Your task to perform on an android device: turn on bluetooth scan Image 0: 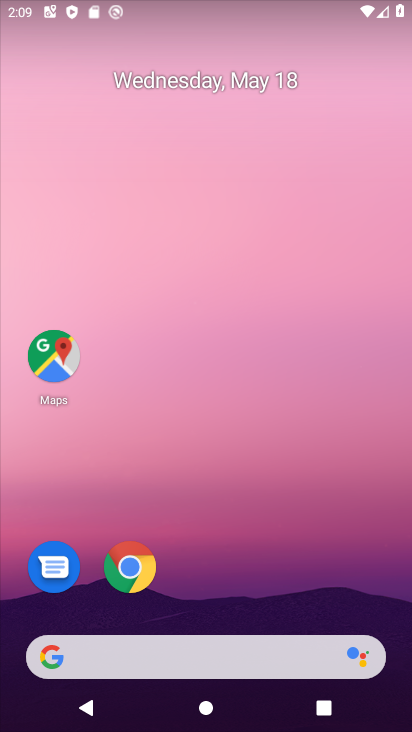
Step 0: drag from (225, 546) to (356, 7)
Your task to perform on an android device: turn on bluetooth scan Image 1: 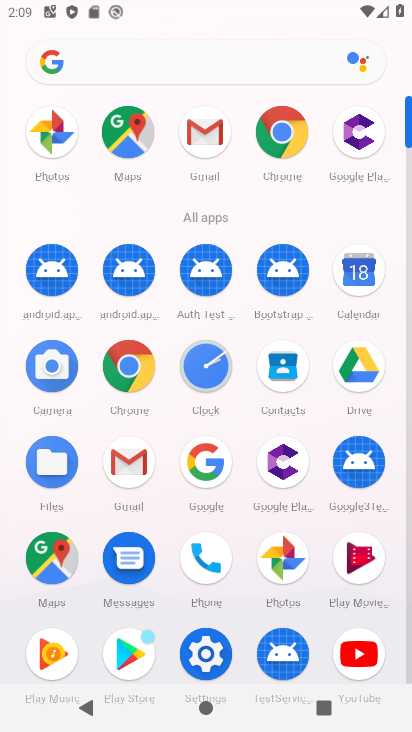
Step 1: click (212, 648)
Your task to perform on an android device: turn on bluetooth scan Image 2: 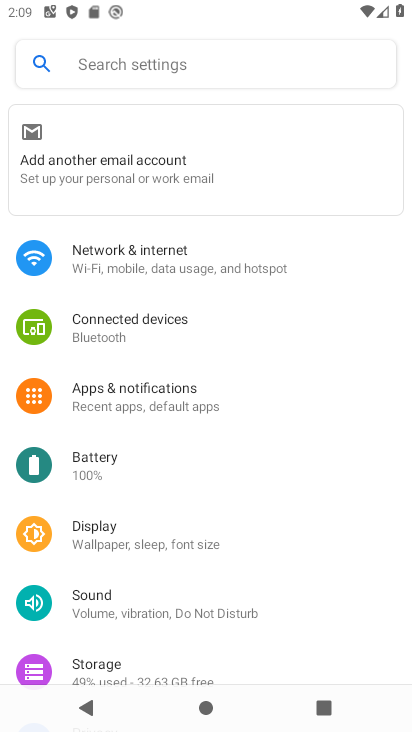
Step 2: drag from (145, 624) to (147, 437)
Your task to perform on an android device: turn on bluetooth scan Image 3: 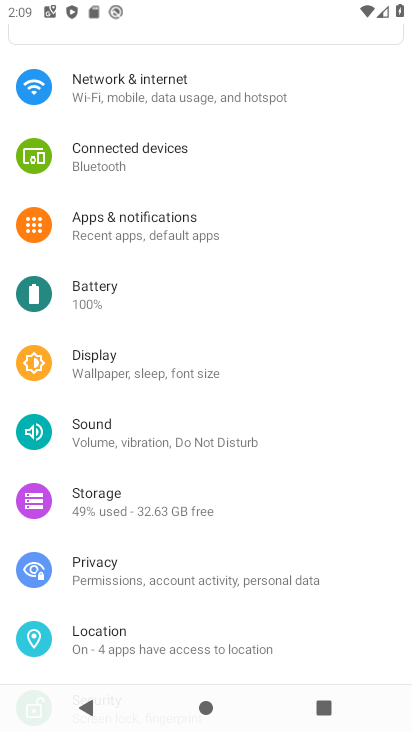
Step 3: click (102, 639)
Your task to perform on an android device: turn on bluetooth scan Image 4: 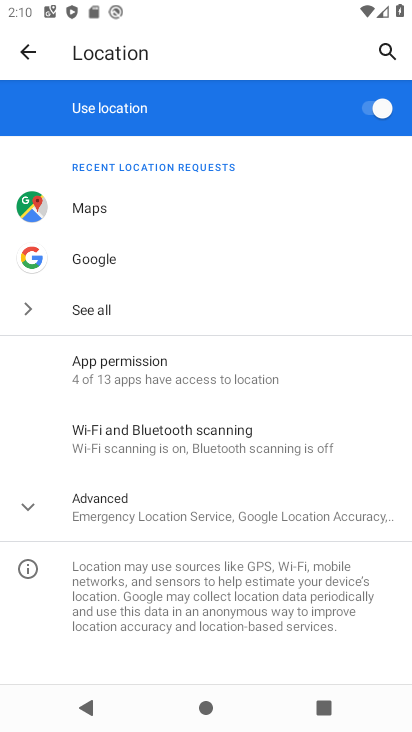
Step 4: click (184, 443)
Your task to perform on an android device: turn on bluetooth scan Image 5: 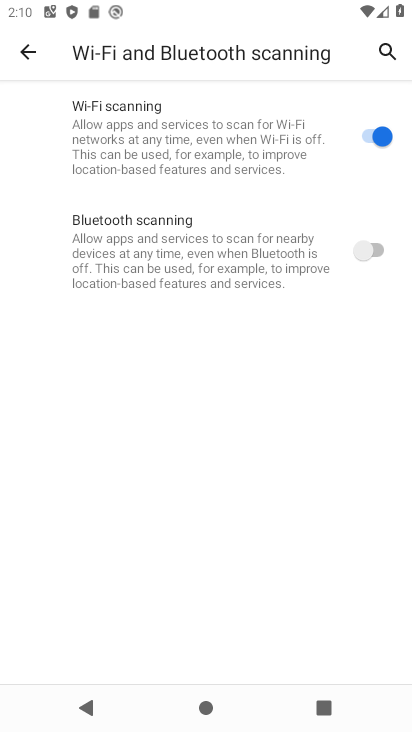
Step 5: click (385, 251)
Your task to perform on an android device: turn on bluetooth scan Image 6: 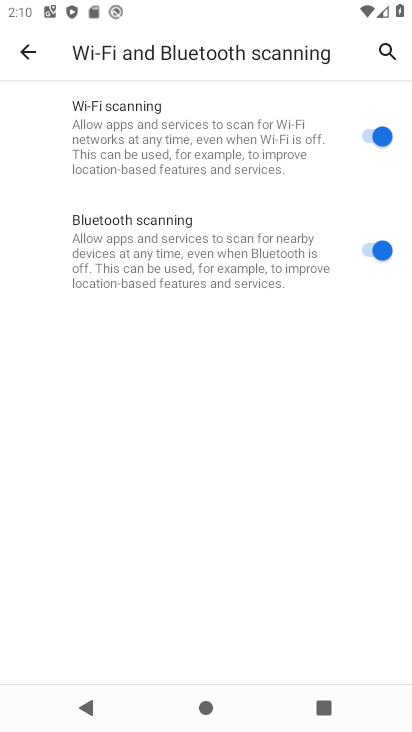
Step 6: task complete